Your task to perform on an android device: check out phone information Image 0: 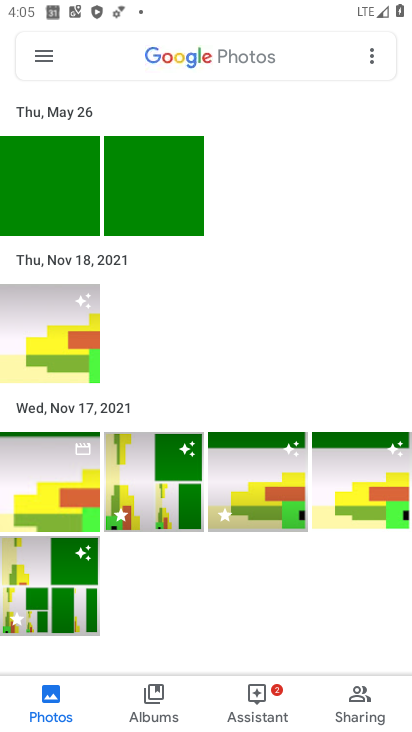
Step 0: press home button
Your task to perform on an android device: check out phone information Image 1: 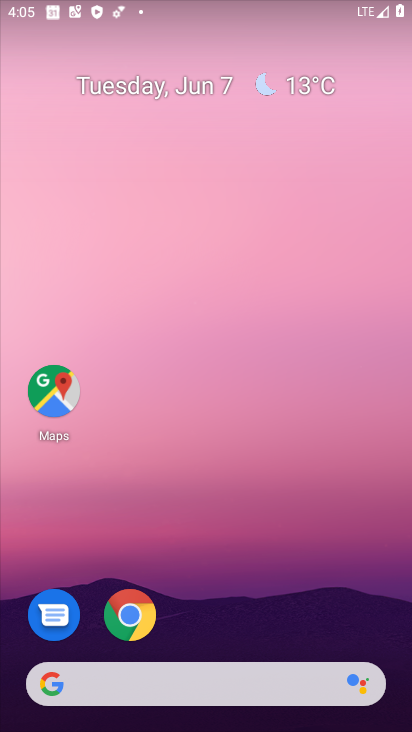
Step 1: drag from (200, 726) to (205, 159)
Your task to perform on an android device: check out phone information Image 2: 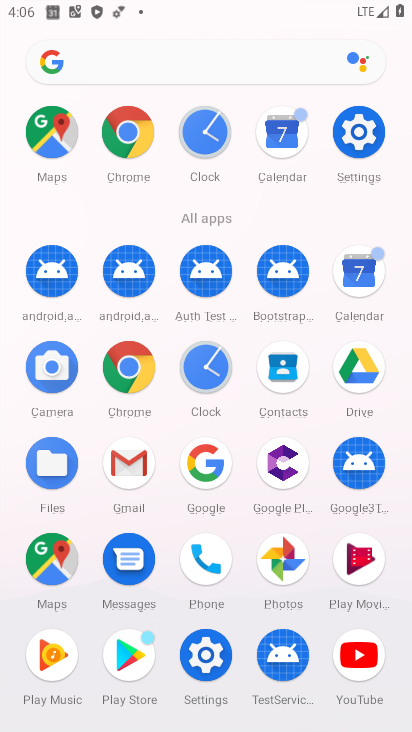
Step 2: click (362, 124)
Your task to perform on an android device: check out phone information Image 3: 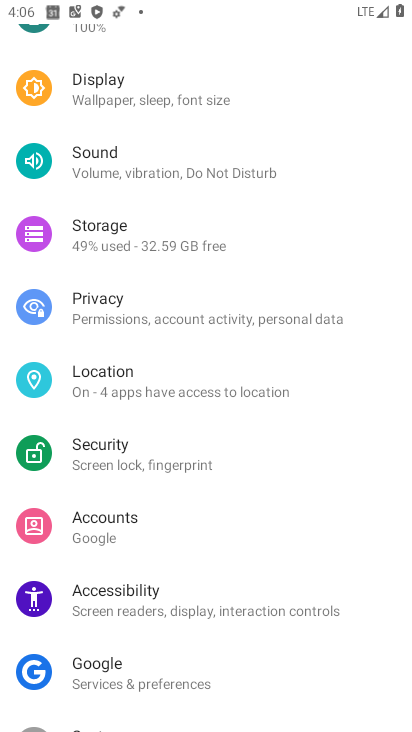
Step 3: drag from (152, 696) to (156, 314)
Your task to perform on an android device: check out phone information Image 4: 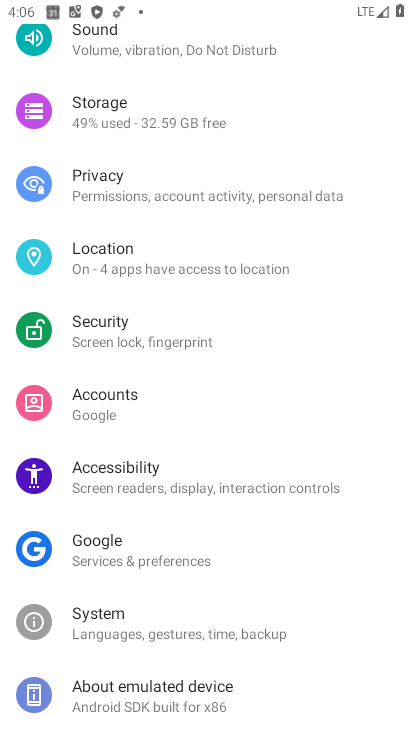
Step 4: click (154, 685)
Your task to perform on an android device: check out phone information Image 5: 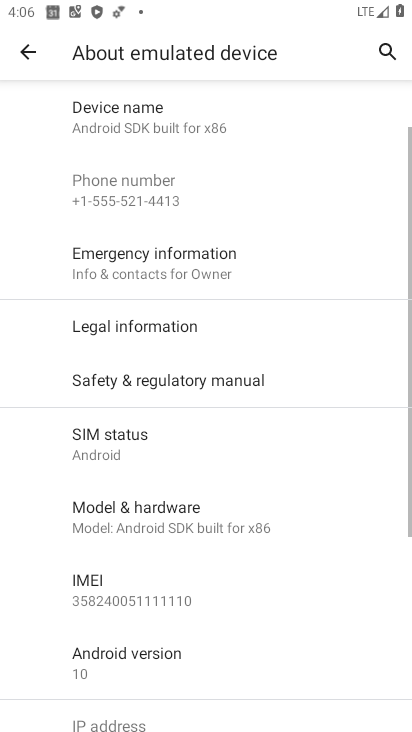
Step 5: task complete